Your task to perform on an android device: Go to accessibility settings Image 0: 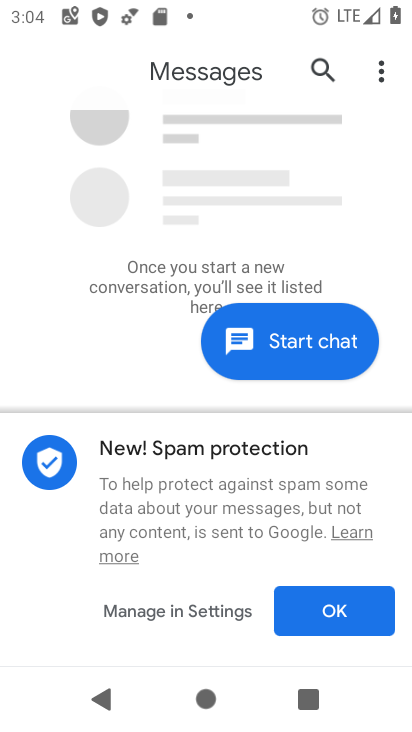
Step 0: press back button
Your task to perform on an android device: Go to accessibility settings Image 1: 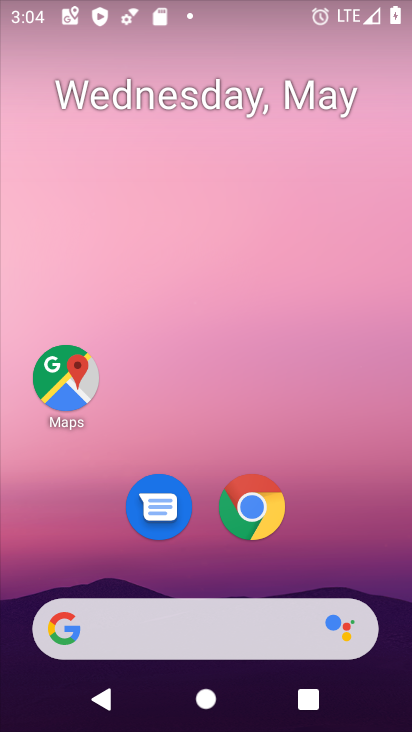
Step 1: drag from (330, 548) to (164, 81)
Your task to perform on an android device: Go to accessibility settings Image 2: 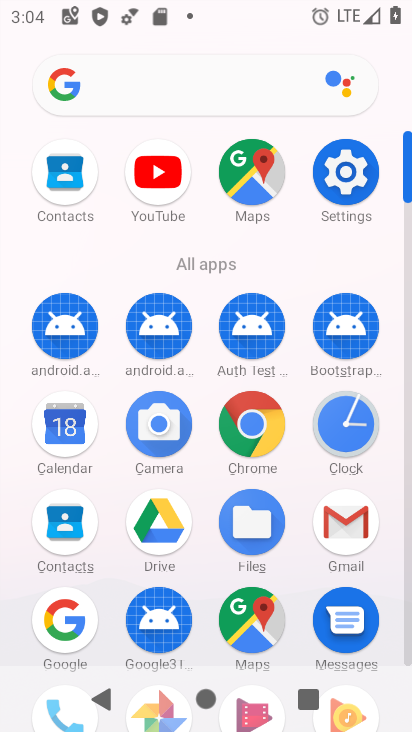
Step 2: click (346, 171)
Your task to perform on an android device: Go to accessibility settings Image 3: 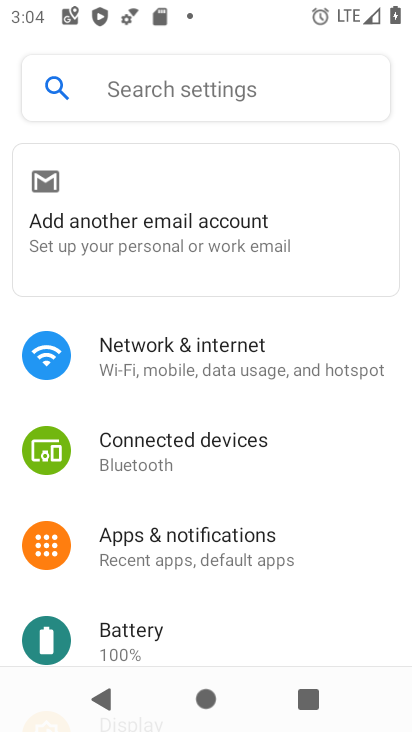
Step 3: drag from (302, 517) to (288, 397)
Your task to perform on an android device: Go to accessibility settings Image 4: 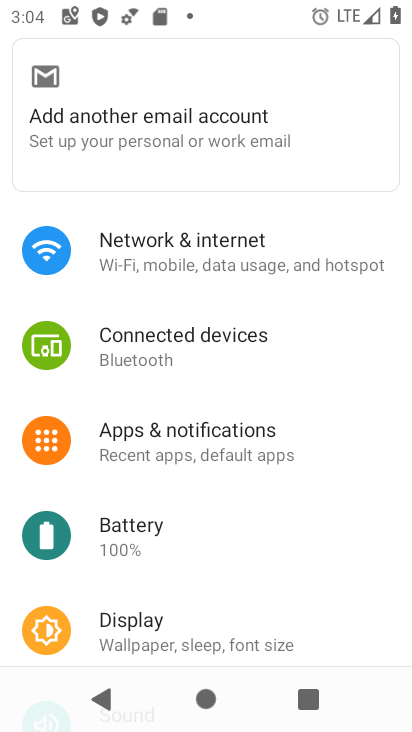
Step 4: drag from (218, 515) to (249, 420)
Your task to perform on an android device: Go to accessibility settings Image 5: 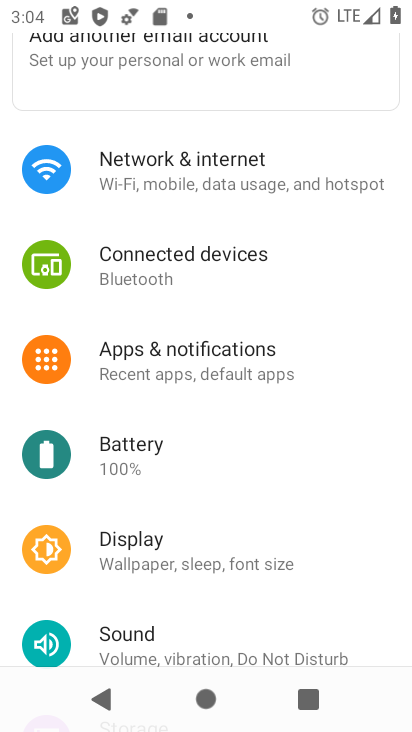
Step 5: drag from (205, 522) to (253, 423)
Your task to perform on an android device: Go to accessibility settings Image 6: 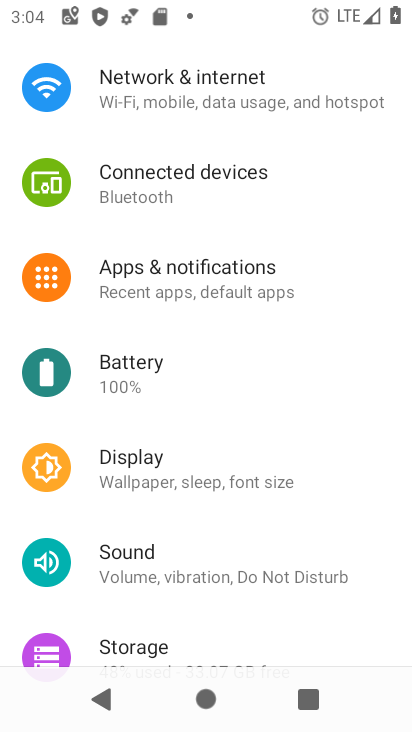
Step 6: drag from (221, 532) to (259, 443)
Your task to perform on an android device: Go to accessibility settings Image 7: 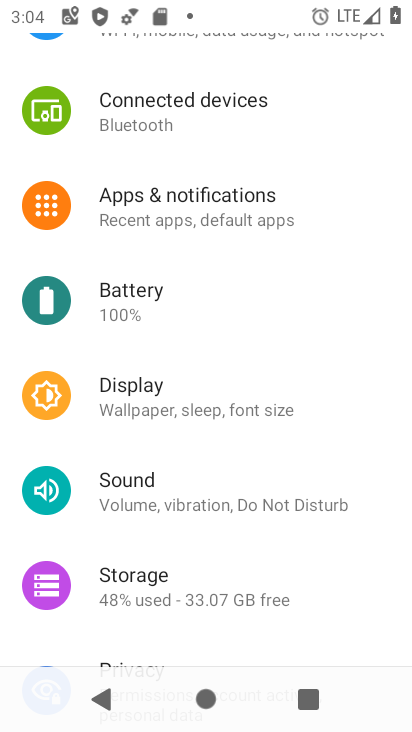
Step 7: drag from (183, 542) to (244, 421)
Your task to perform on an android device: Go to accessibility settings Image 8: 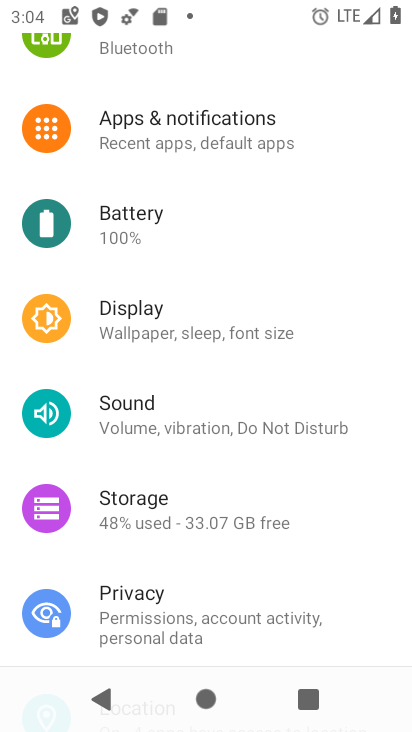
Step 8: drag from (190, 569) to (265, 458)
Your task to perform on an android device: Go to accessibility settings Image 9: 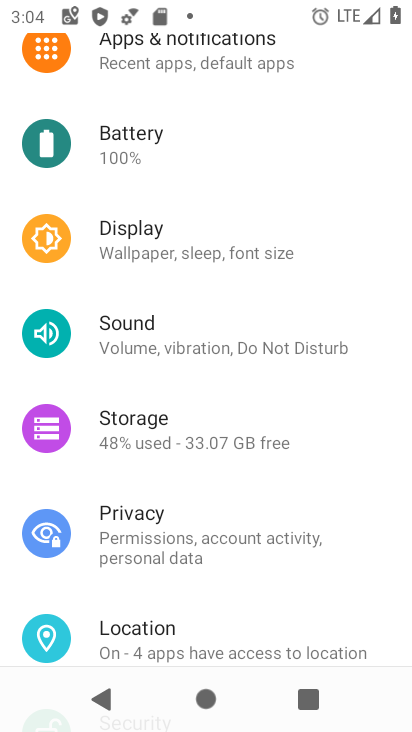
Step 9: drag from (219, 510) to (252, 405)
Your task to perform on an android device: Go to accessibility settings Image 10: 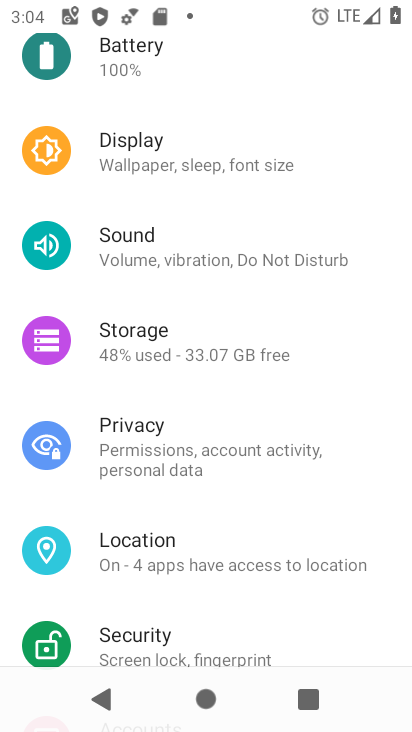
Step 10: drag from (213, 506) to (257, 394)
Your task to perform on an android device: Go to accessibility settings Image 11: 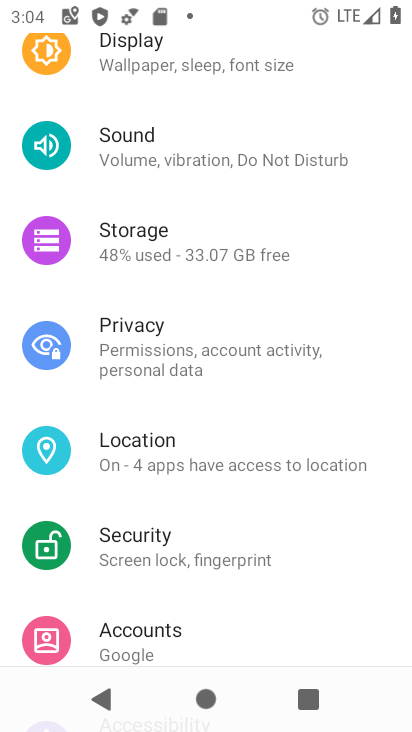
Step 11: drag from (215, 525) to (252, 413)
Your task to perform on an android device: Go to accessibility settings Image 12: 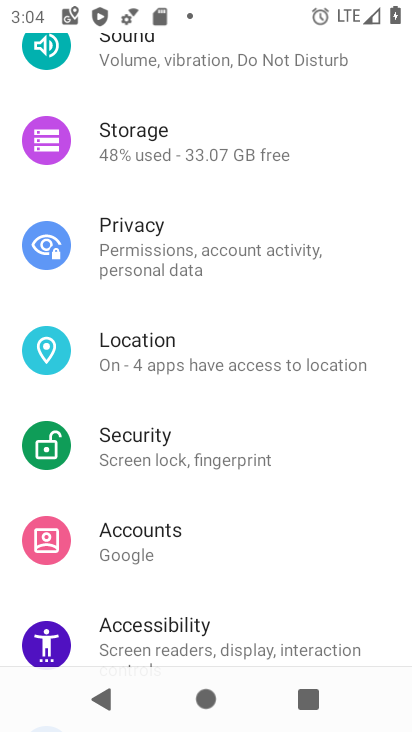
Step 12: drag from (217, 518) to (240, 369)
Your task to perform on an android device: Go to accessibility settings Image 13: 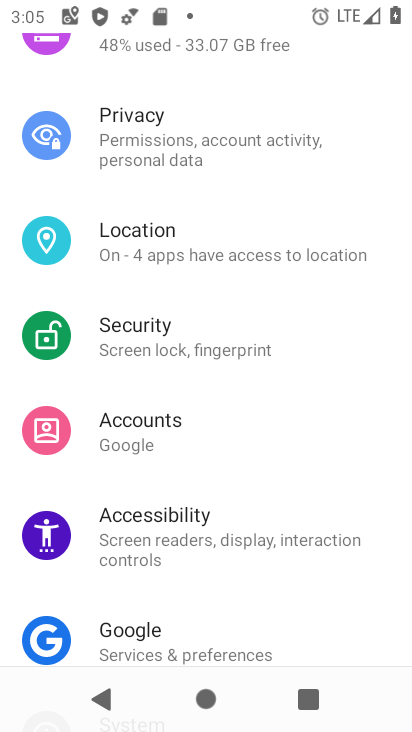
Step 13: click (164, 523)
Your task to perform on an android device: Go to accessibility settings Image 14: 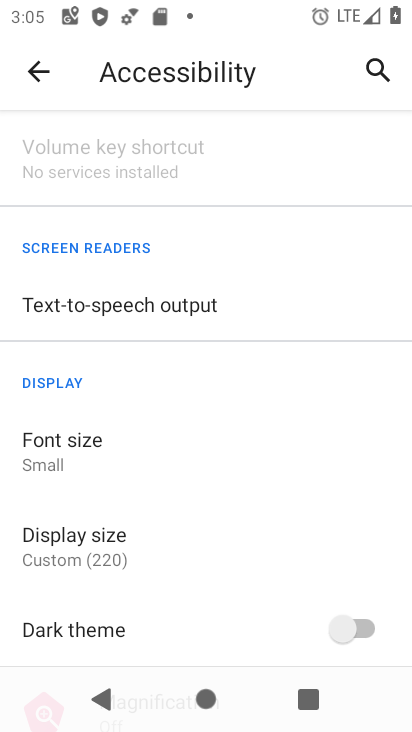
Step 14: task complete